Your task to perform on an android device: check the backup settings in the google photos Image 0: 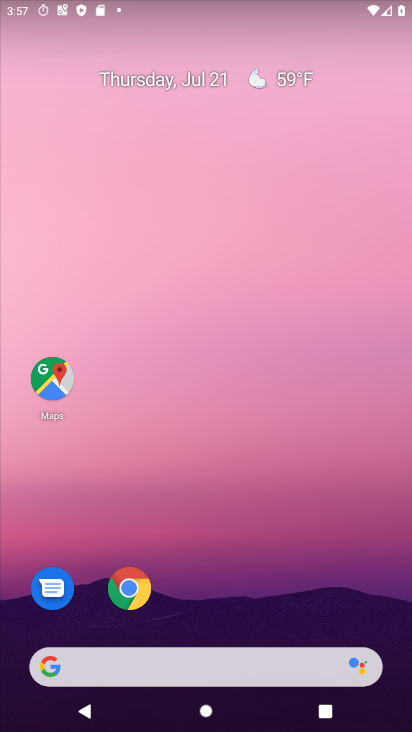
Step 0: drag from (204, 540) to (197, 157)
Your task to perform on an android device: check the backup settings in the google photos Image 1: 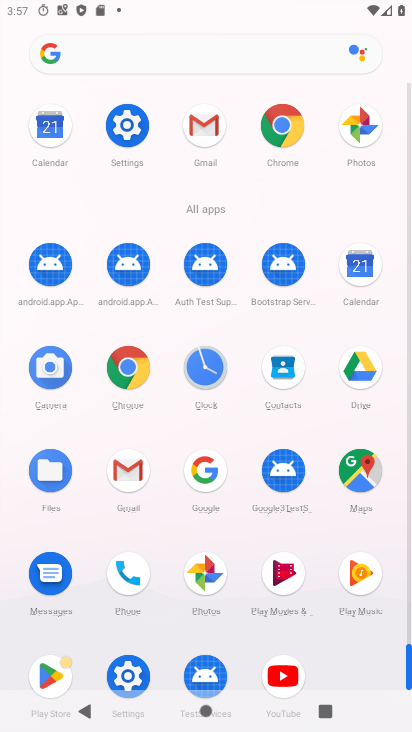
Step 1: click (200, 589)
Your task to perform on an android device: check the backup settings in the google photos Image 2: 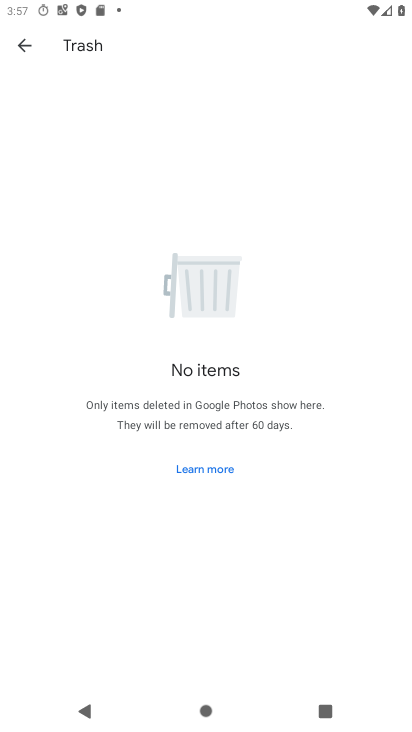
Step 2: click (27, 51)
Your task to perform on an android device: check the backup settings in the google photos Image 3: 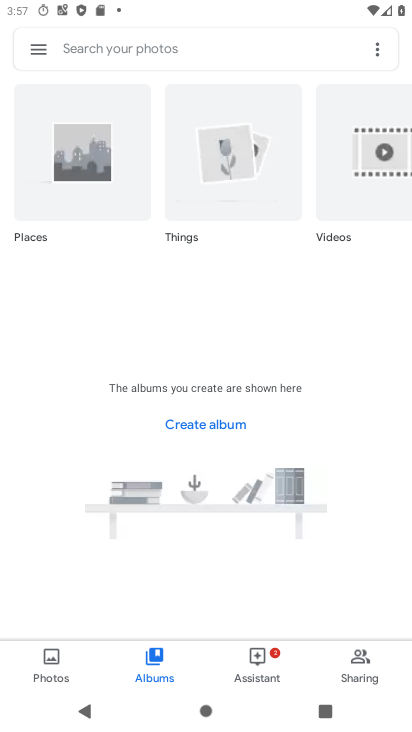
Step 3: click (28, 51)
Your task to perform on an android device: check the backup settings in the google photos Image 4: 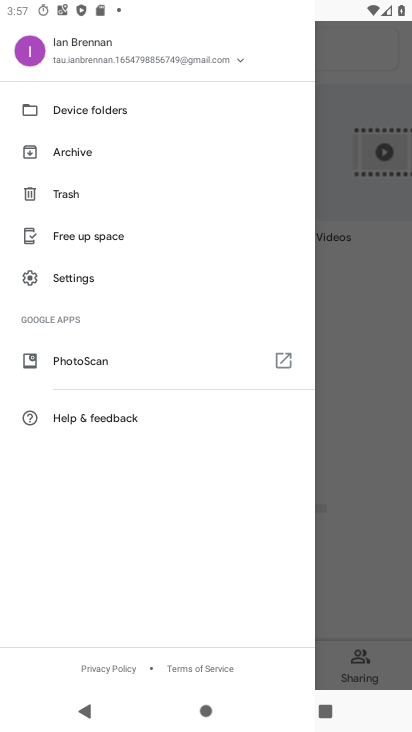
Step 4: click (67, 282)
Your task to perform on an android device: check the backup settings in the google photos Image 5: 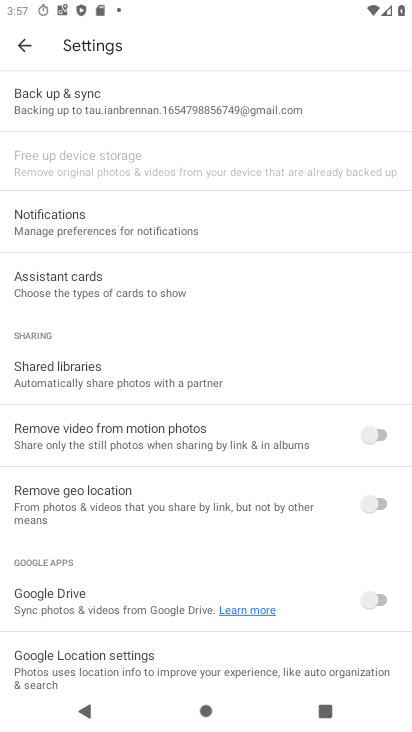
Step 5: click (76, 101)
Your task to perform on an android device: check the backup settings in the google photos Image 6: 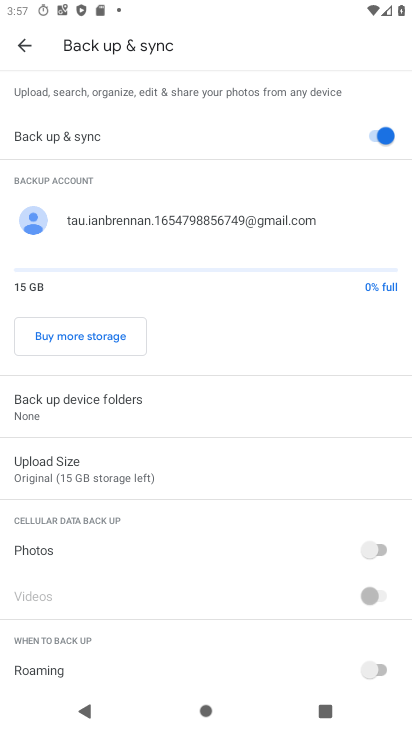
Step 6: task complete